Your task to perform on an android device: toggle pop-ups in chrome Image 0: 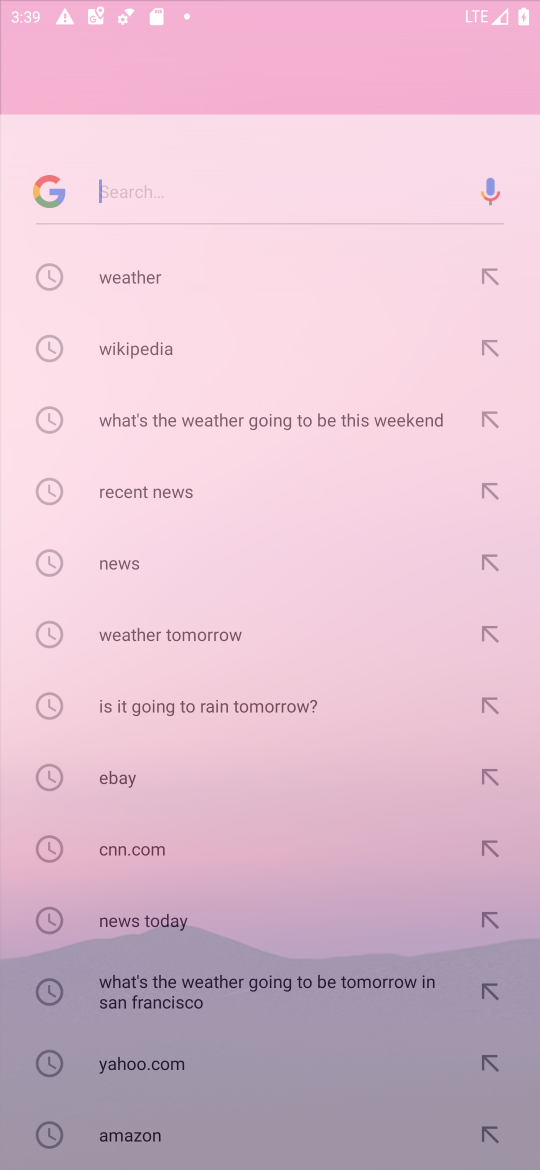
Step 0: press home button
Your task to perform on an android device: toggle pop-ups in chrome Image 1: 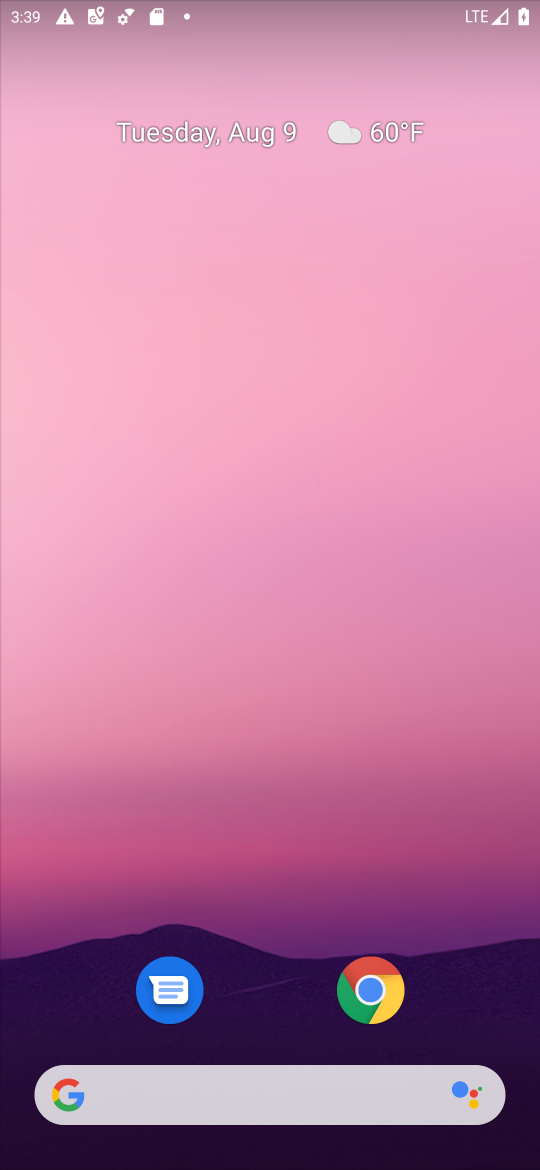
Step 1: task complete